Your task to perform on an android device: turn on wifi Image 0: 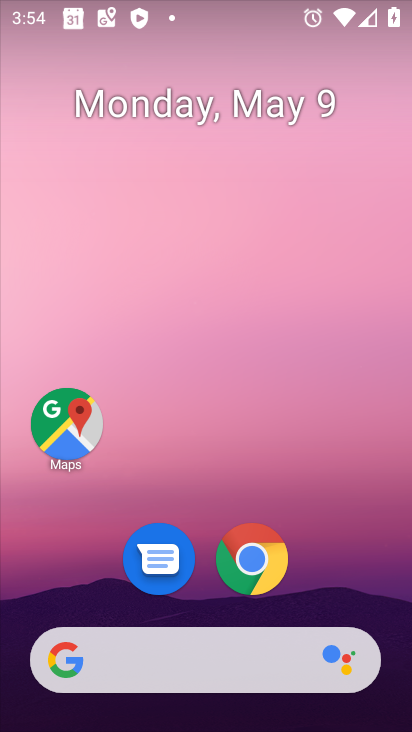
Step 0: drag from (216, 728) to (217, 109)
Your task to perform on an android device: turn on wifi Image 1: 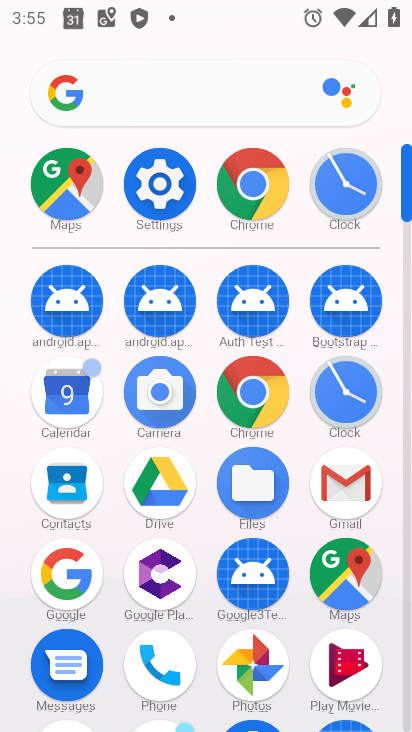
Step 1: click (161, 182)
Your task to perform on an android device: turn on wifi Image 2: 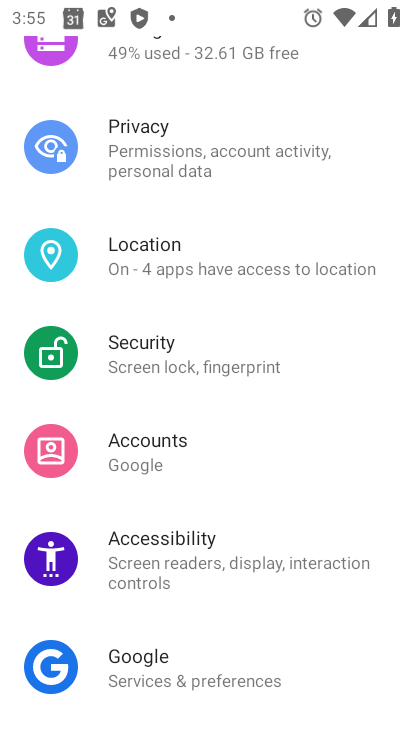
Step 2: drag from (360, 115) to (337, 567)
Your task to perform on an android device: turn on wifi Image 3: 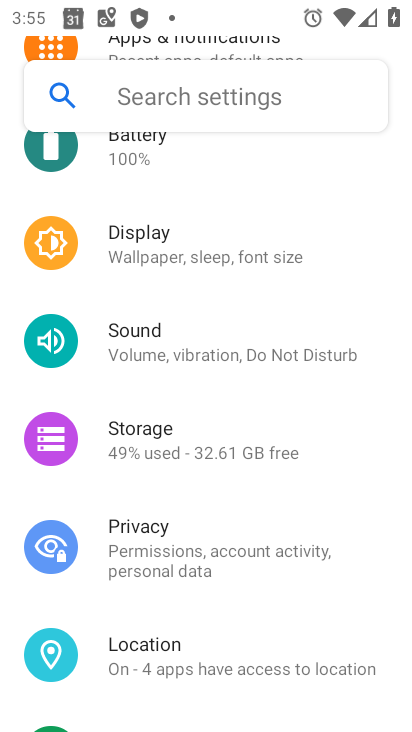
Step 3: drag from (362, 167) to (373, 547)
Your task to perform on an android device: turn on wifi Image 4: 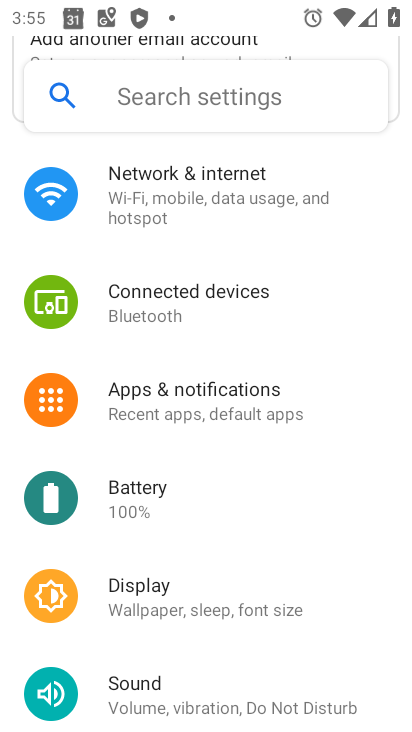
Step 4: click (154, 188)
Your task to perform on an android device: turn on wifi Image 5: 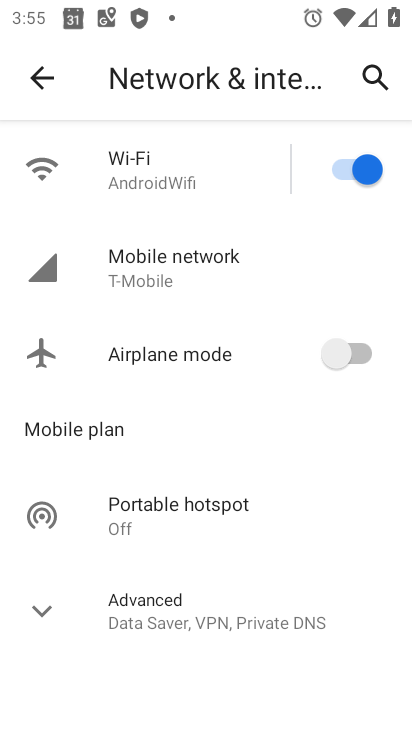
Step 5: task complete